Your task to perform on an android device: Open the camera Image 0: 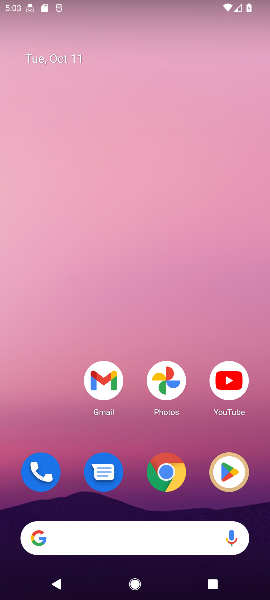
Step 0: drag from (143, 514) to (115, 62)
Your task to perform on an android device: Open the camera Image 1: 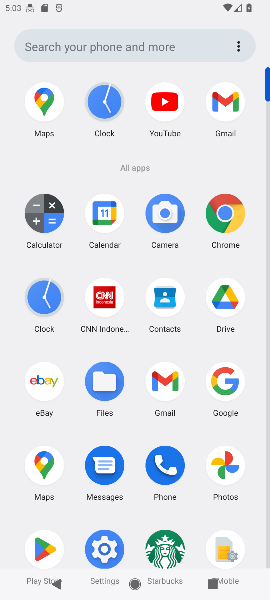
Step 1: click (169, 202)
Your task to perform on an android device: Open the camera Image 2: 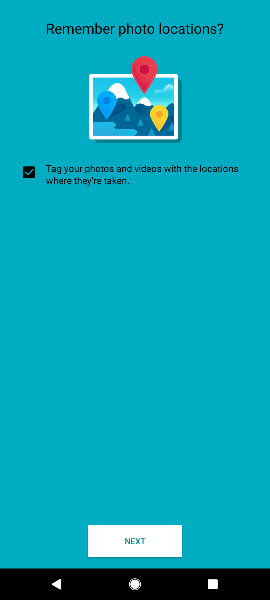
Step 2: click (95, 526)
Your task to perform on an android device: Open the camera Image 3: 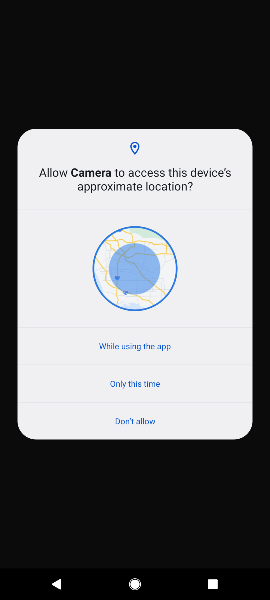
Step 3: click (132, 343)
Your task to perform on an android device: Open the camera Image 4: 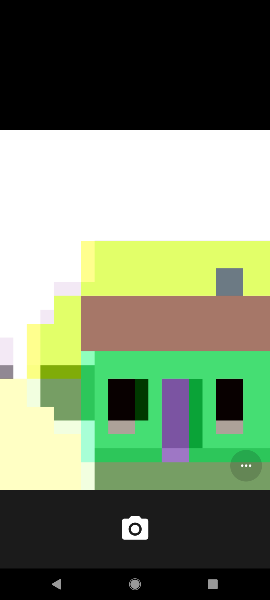
Step 4: task complete